Your task to perform on an android device: refresh tabs in the chrome app Image 0: 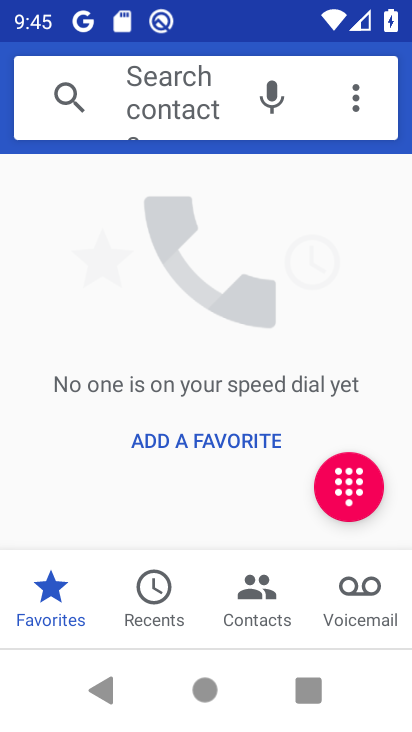
Step 0: press home button
Your task to perform on an android device: refresh tabs in the chrome app Image 1: 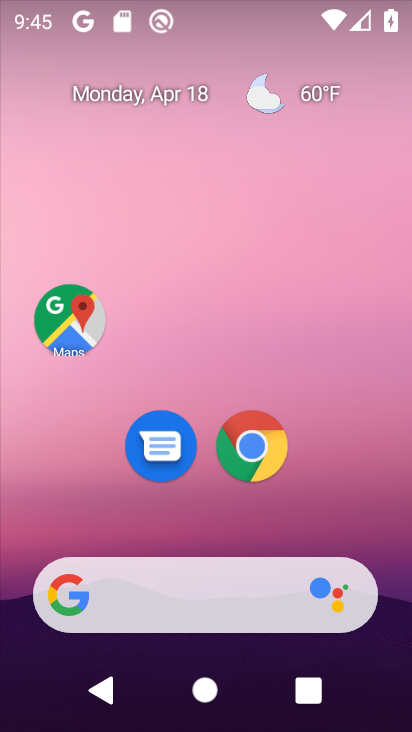
Step 1: drag from (372, 512) to (369, 112)
Your task to perform on an android device: refresh tabs in the chrome app Image 2: 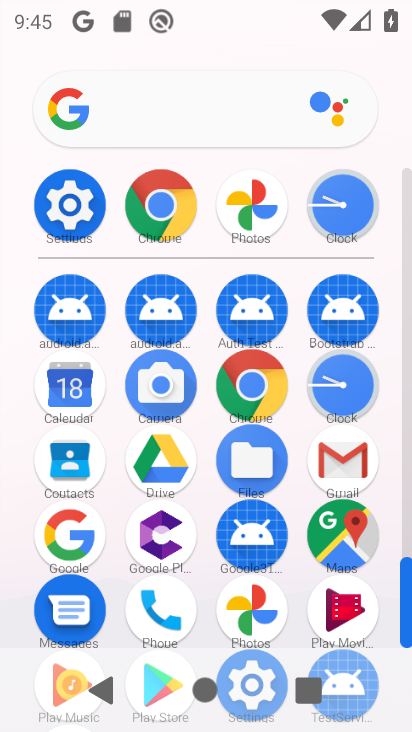
Step 2: click (253, 381)
Your task to perform on an android device: refresh tabs in the chrome app Image 3: 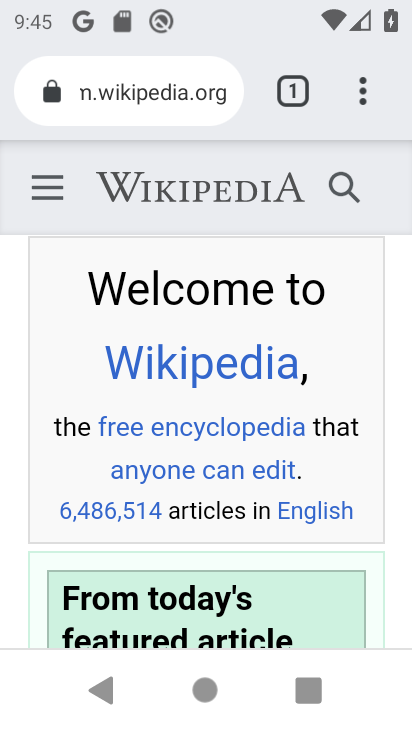
Step 3: click (361, 102)
Your task to perform on an android device: refresh tabs in the chrome app Image 4: 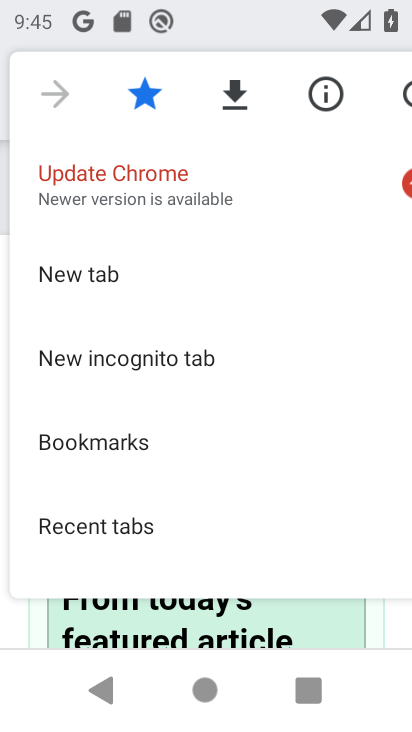
Step 4: click (406, 92)
Your task to perform on an android device: refresh tabs in the chrome app Image 5: 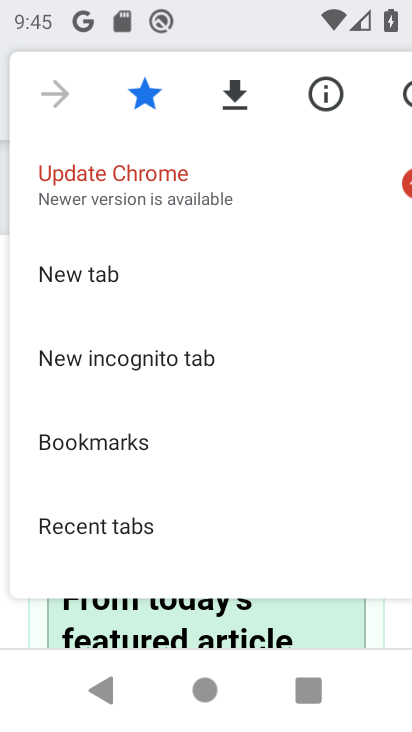
Step 5: task complete